Your task to perform on an android device: Go to sound settings Image 0: 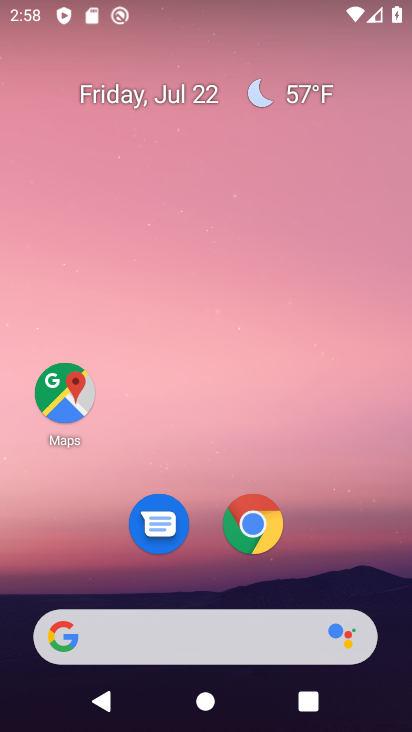
Step 0: press home button
Your task to perform on an android device: Go to sound settings Image 1: 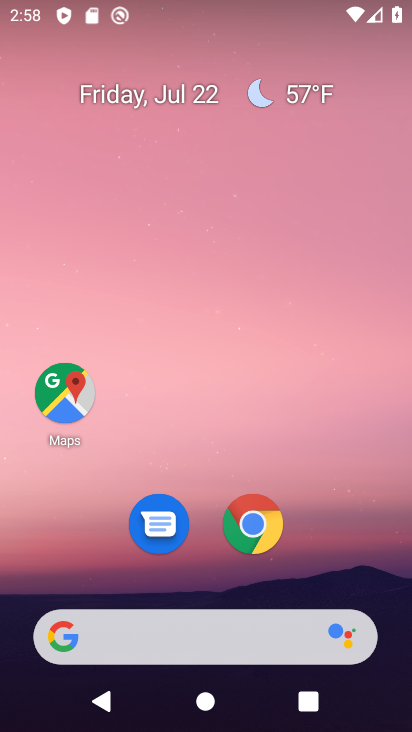
Step 1: drag from (246, 644) to (403, 32)
Your task to perform on an android device: Go to sound settings Image 2: 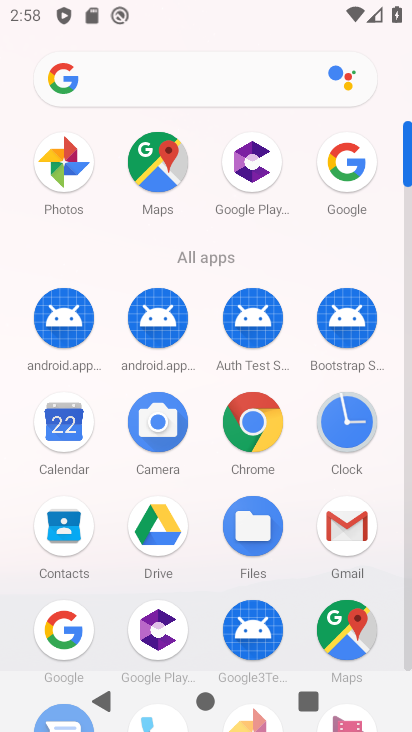
Step 2: drag from (207, 625) to (346, 94)
Your task to perform on an android device: Go to sound settings Image 3: 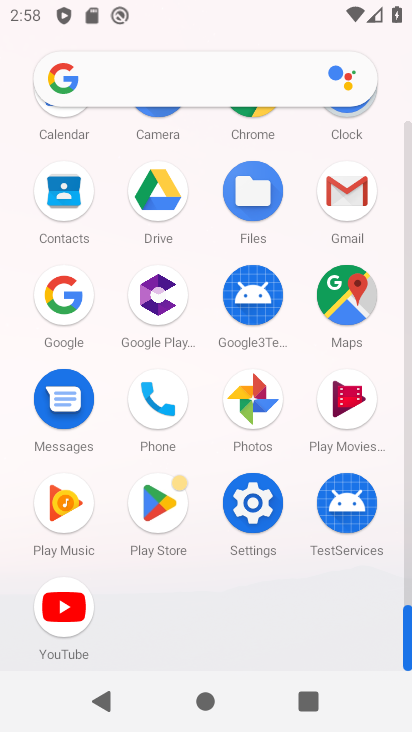
Step 3: click (252, 485)
Your task to perform on an android device: Go to sound settings Image 4: 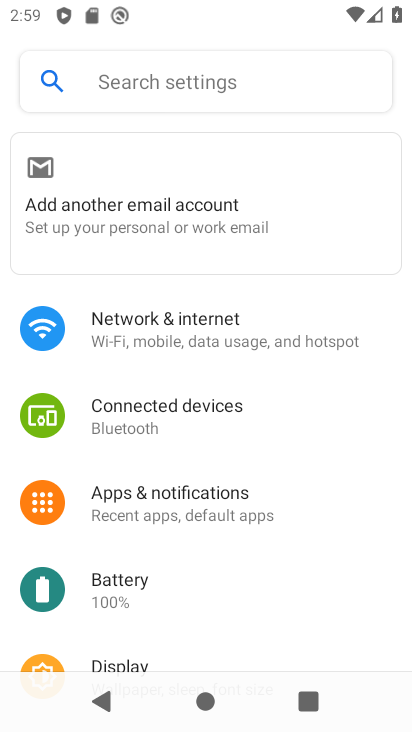
Step 4: drag from (177, 640) to (294, 115)
Your task to perform on an android device: Go to sound settings Image 5: 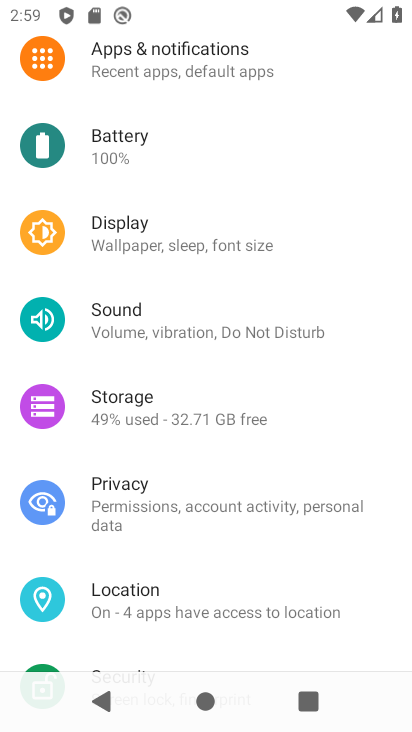
Step 5: click (150, 330)
Your task to perform on an android device: Go to sound settings Image 6: 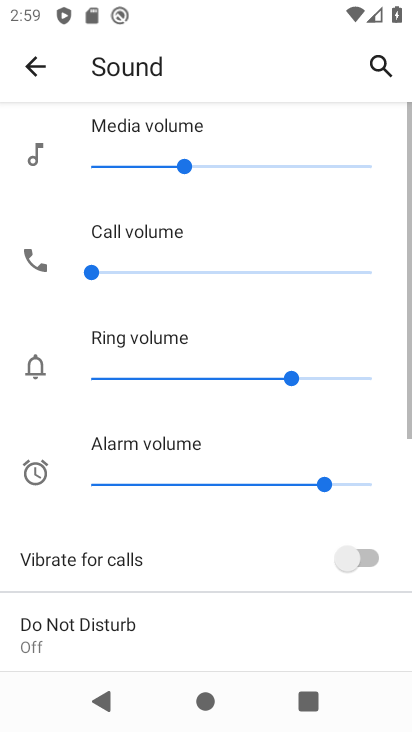
Step 6: task complete